Your task to perform on an android device: Open Google Maps Image 0: 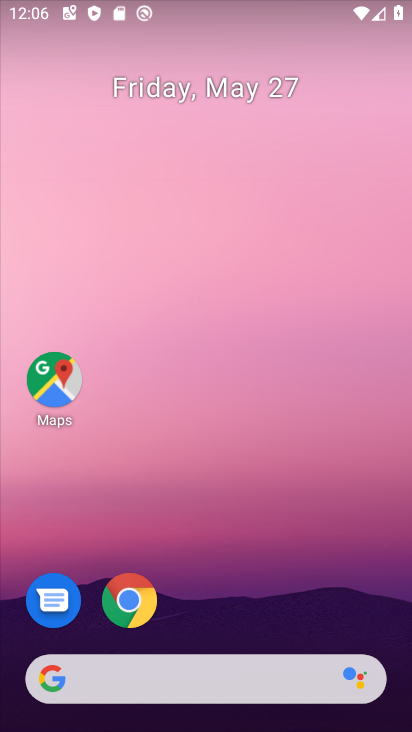
Step 0: drag from (319, 579) to (240, 56)
Your task to perform on an android device: Open Google Maps Image 1: 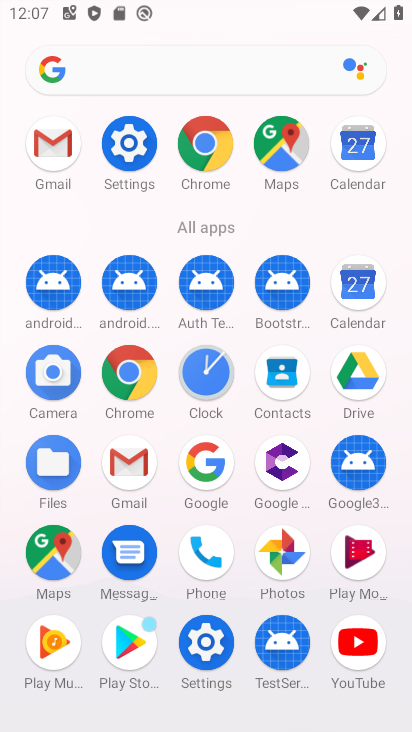
Step 1: drag from (18, 623) to (0, 259)
Your task to perform on an android device: Open Google Maps Image 2: 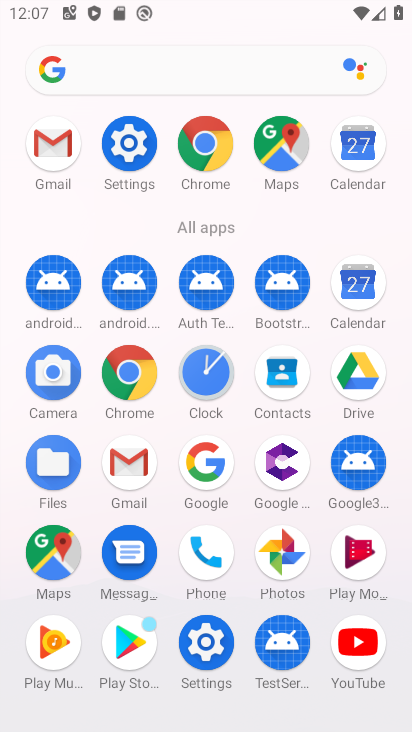
Step 2: click (52, 552)
Your task to perform on an android device: Open Google Maps Image 3: 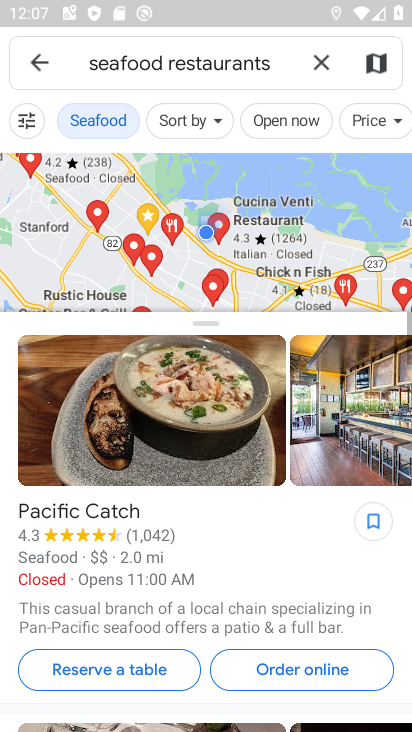
Step 3: click (324, 60)
Your task to perform on an android device: Open Google Maps Image 4: 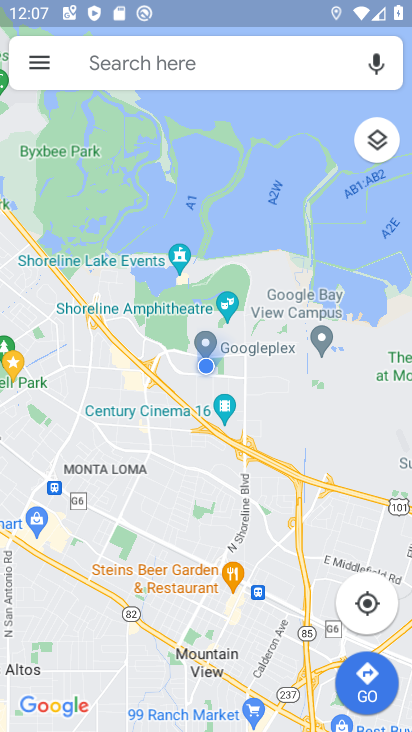
Step 4: task complete